Your task to perform on an android device: Check the news Image 0: 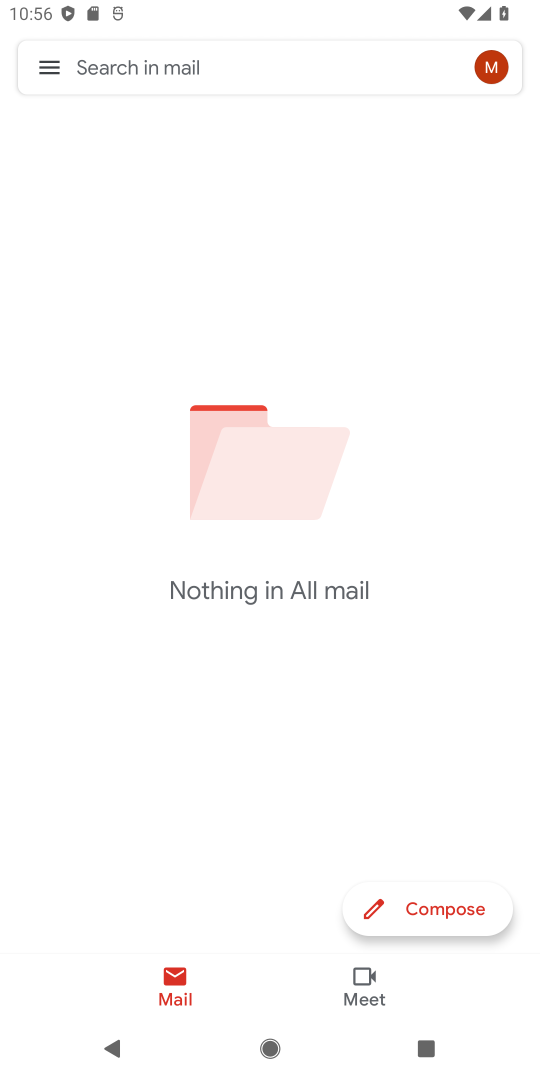
Step 0: press home button
Your task to perform on an android device: Check the news Image 1: 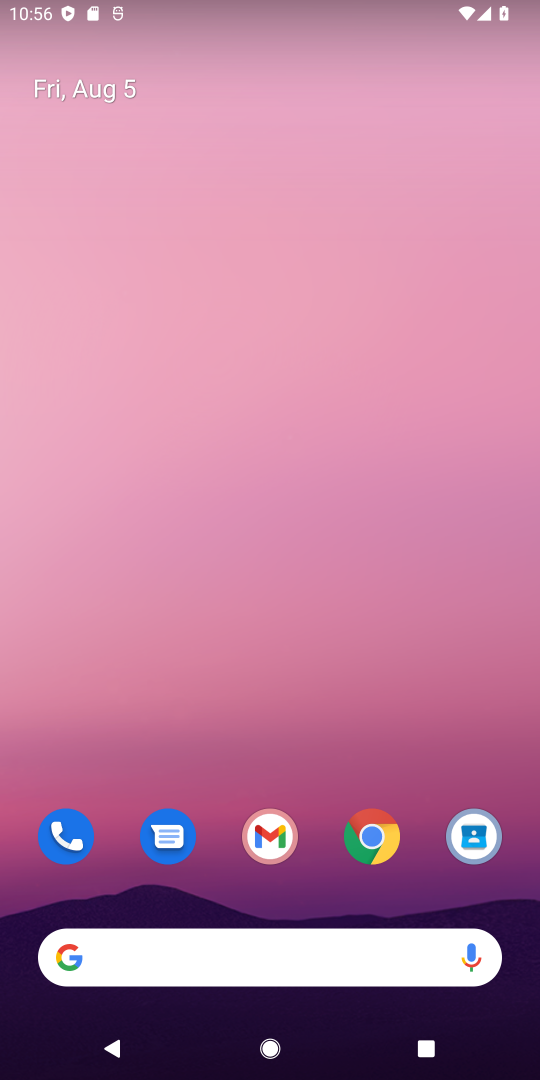
Step 1: drag from (415, 707) to (385, 66)
Your task to perform on an android device: Check the news Image 2: 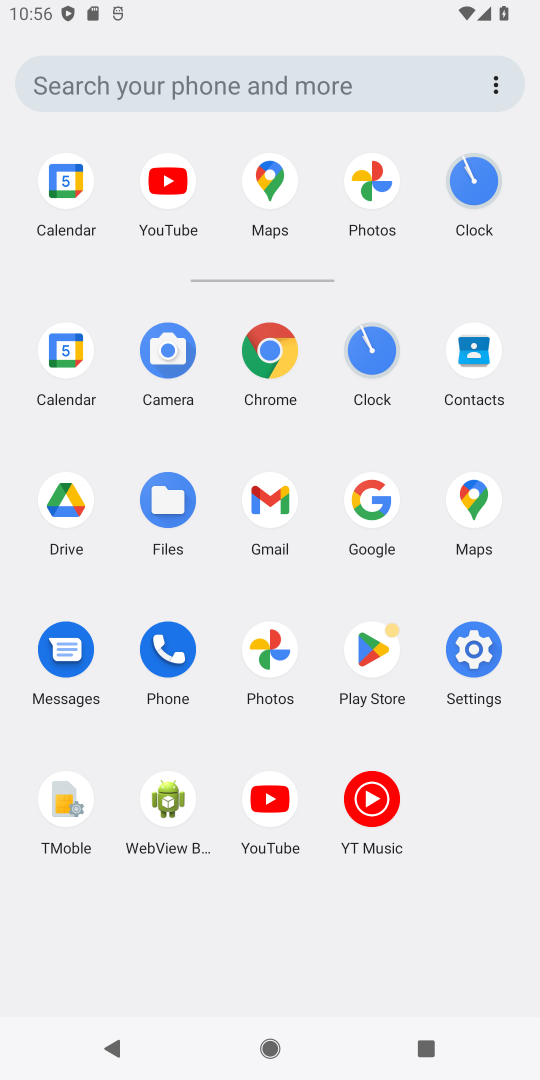
Step 2: click (263, 347)
Your task to perform on an android device: Check the news Image 3: 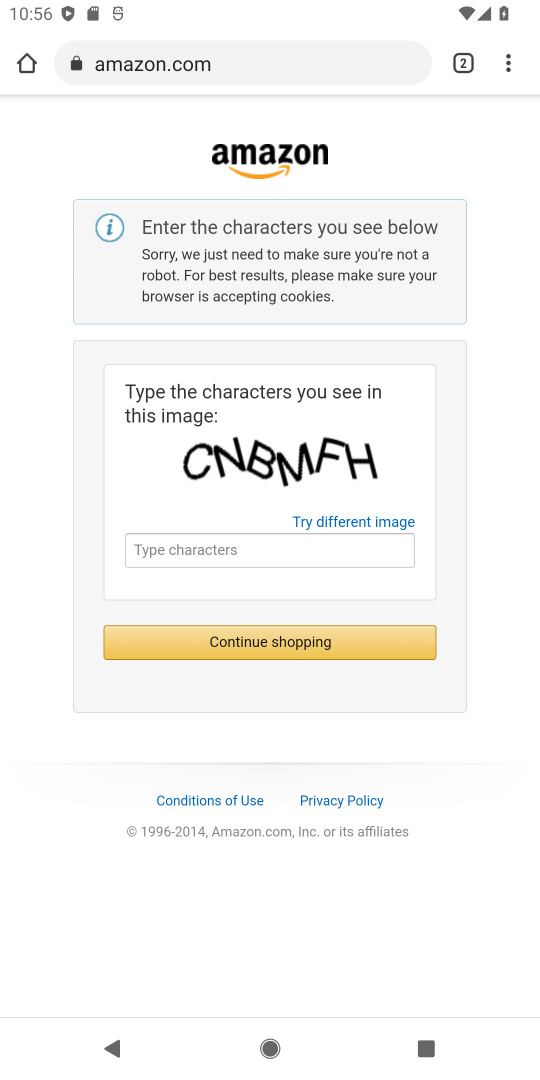
Step 3: click (249, 62)
Your task to perform on an android device: Check the news Image 4: 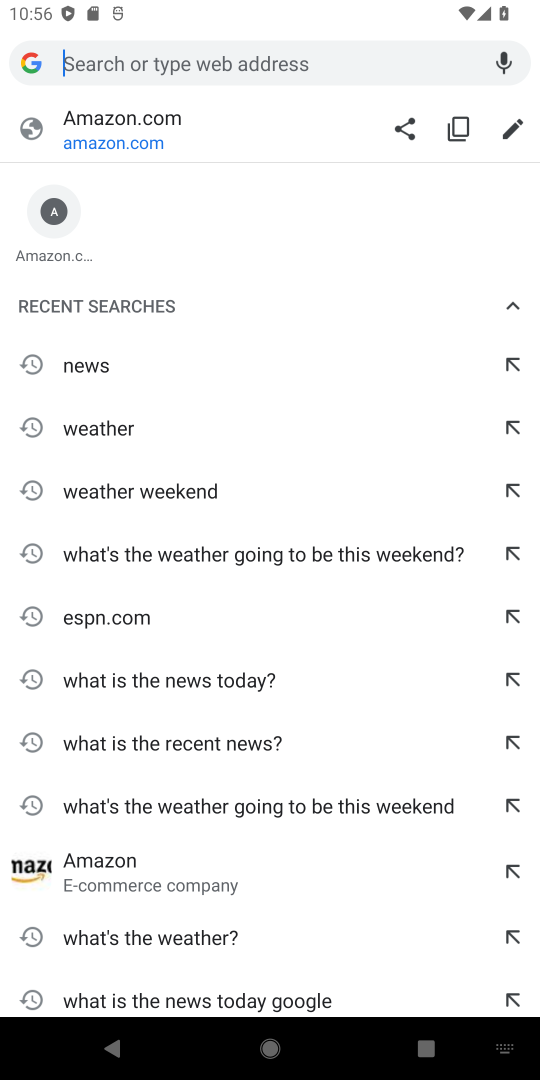
Step 4: type "news"
Your task to perform on an android device: Check the news Image 5: 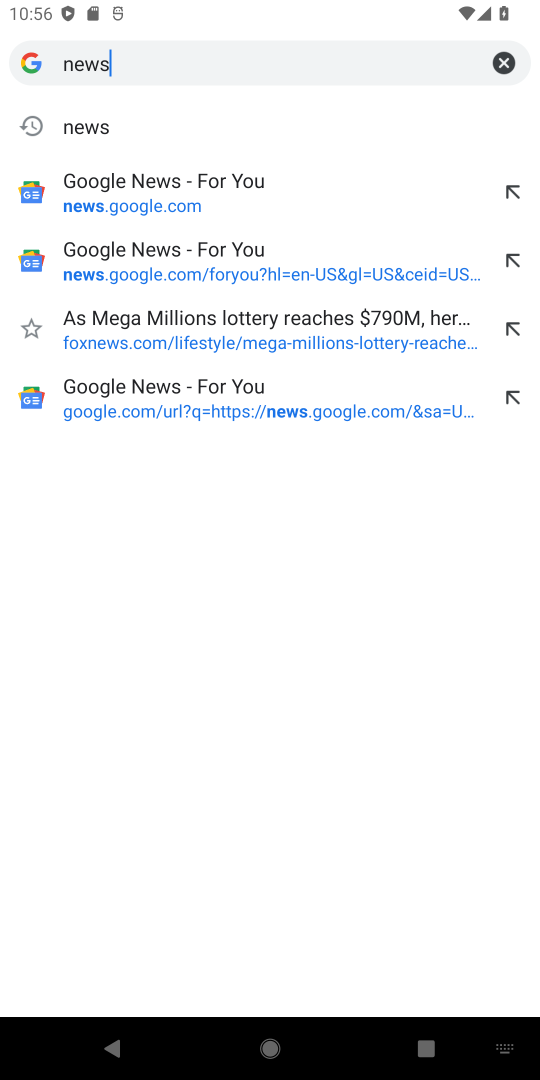
Step 5: click (90, 124)
Your task to perform on an android device: Check the news Image 6: 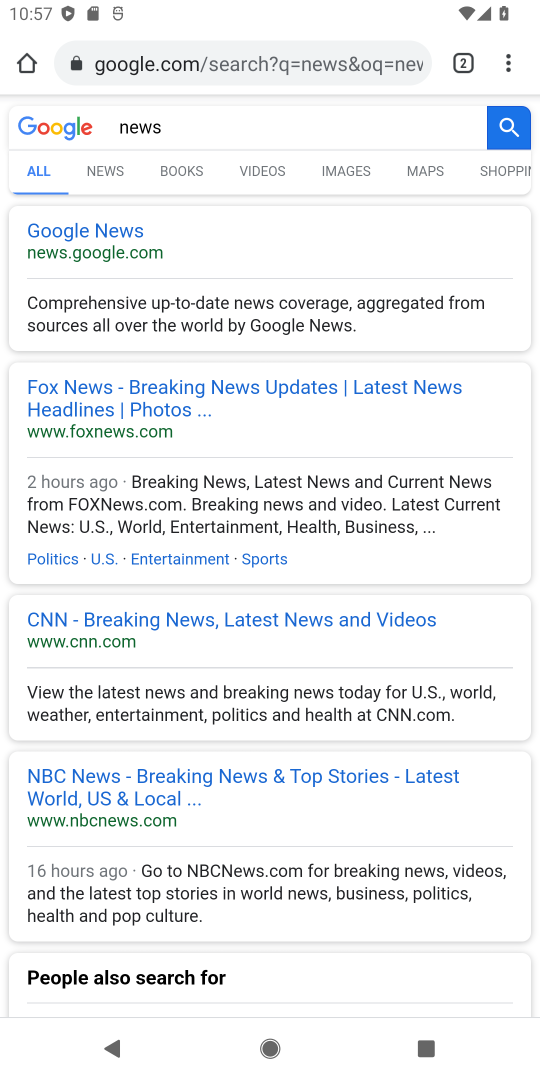
Step 6: click (73, 235)
Your task to perform on an android device: Check the news Image 7: 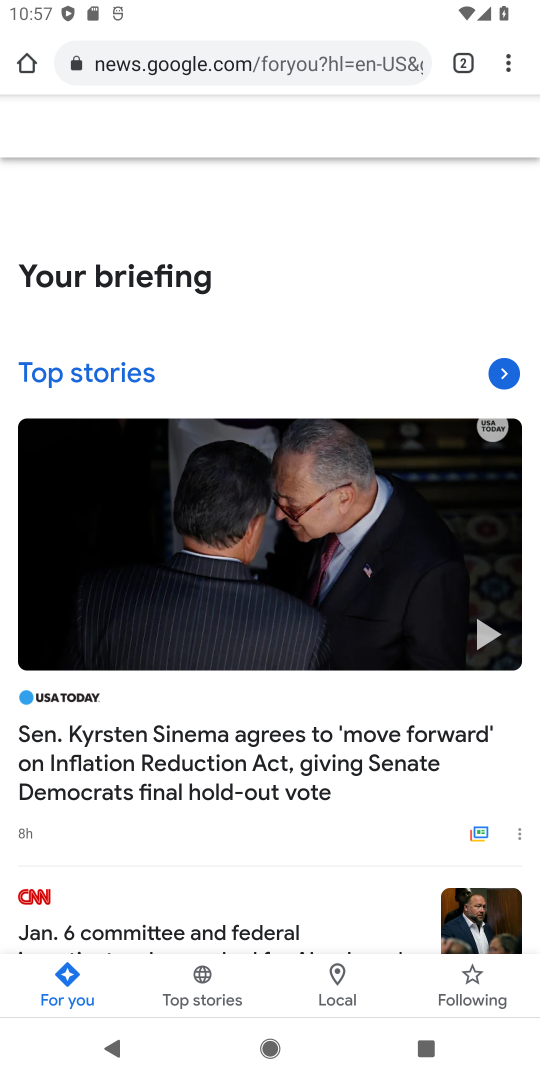
Step 7: task complete